Your task to perform on an android device: Open calendar and show me the third week of next month Image 0: 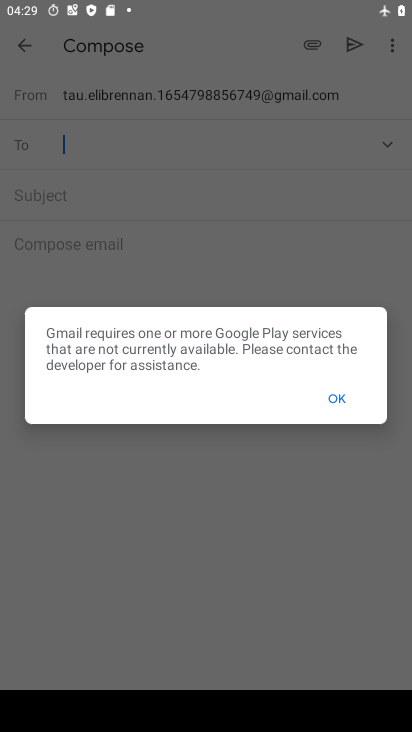
Step 0: press home button
Your task to perform on an android device: Open calendar and show me the third week of next month Image 1: 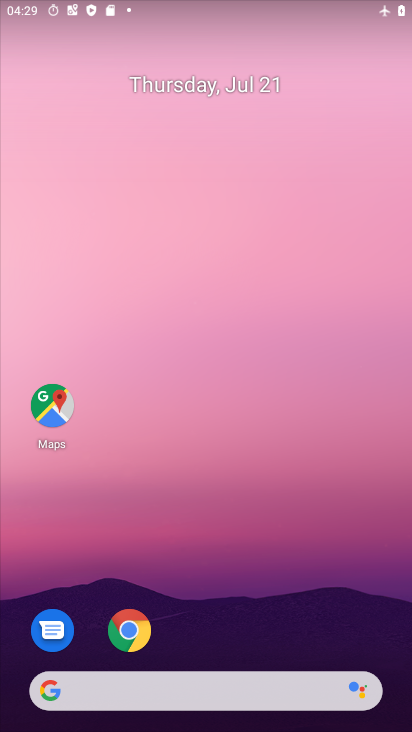
Step 1: click (235, 87)
Your task to perform on an android device: Open calendar and show me the third week of next month Image 2: 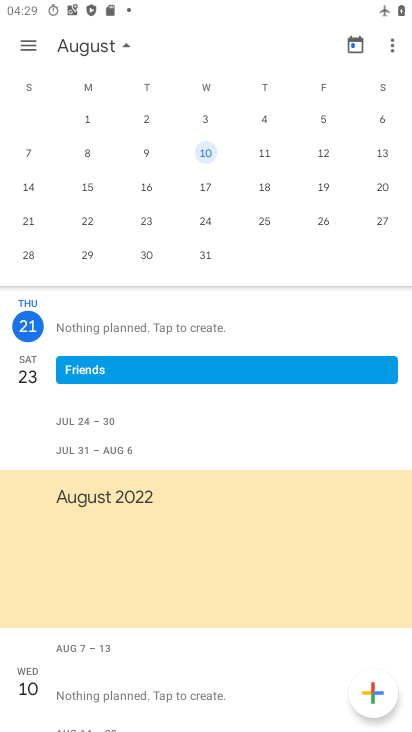
Step 2: click (208, 180)
Your task to perform on an android device: Open calendar and show me the third week of next month Image 3: 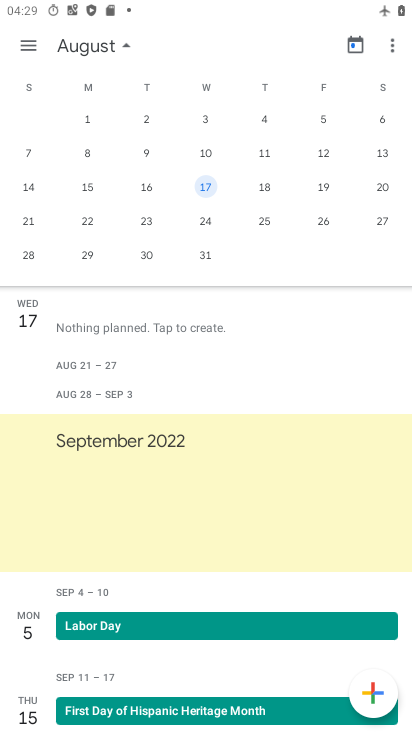
Step 3: task complete